Your task to perform on an android device: When is my next appointment? Image 0: 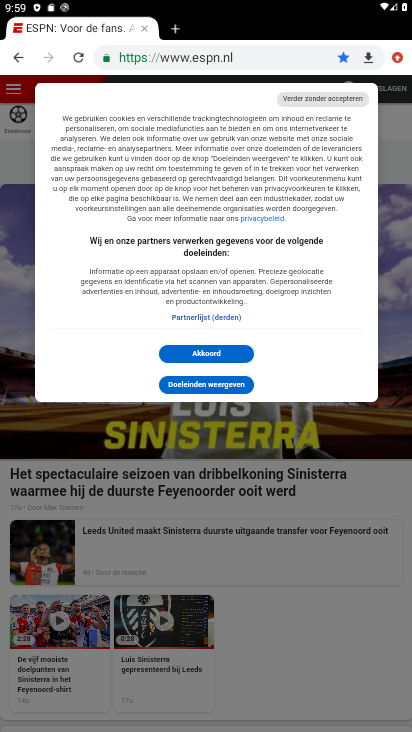
Step 0: press home button
Your task to perform on an android device: When is my next appointment? Image 1: 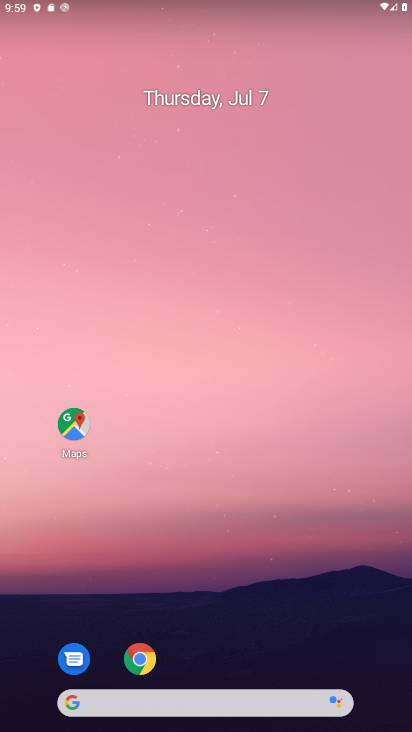
Step 1: drag from (182, 712) to (145, 141)
Your task to perform on an android device: When is my next appointment? Image 2: 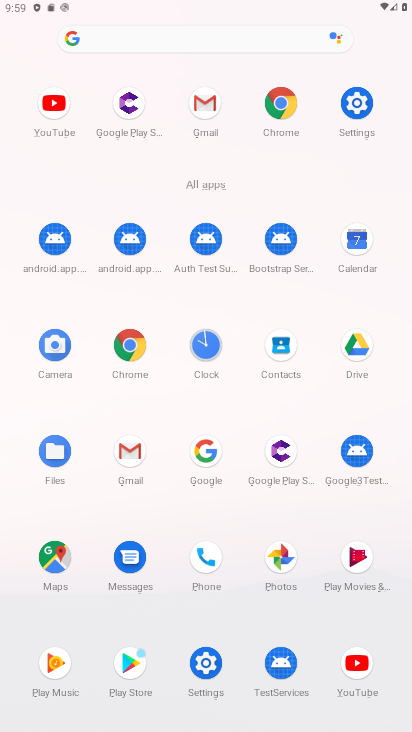
Step 2: click (362, 236)
Your task to perform on an android device: When is my next appointment? Image 3: 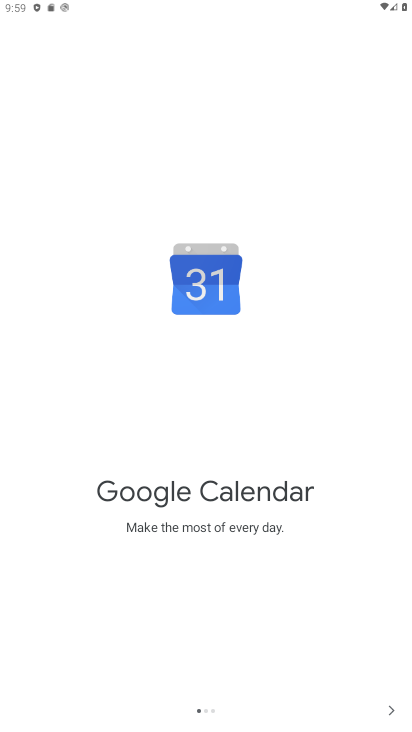
Step 3: click (392, 715)
Your task to perform on an android device: When is my next appointment? Image 4: 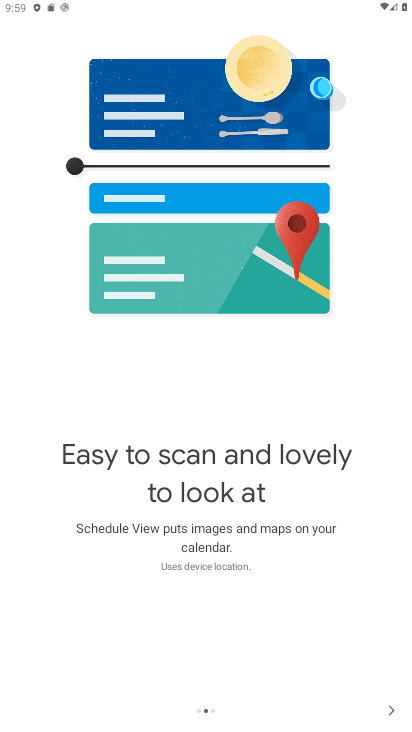
Step 4: click (392, 715)
Your task to perform on an android device: When is my next appointment? Image 5: 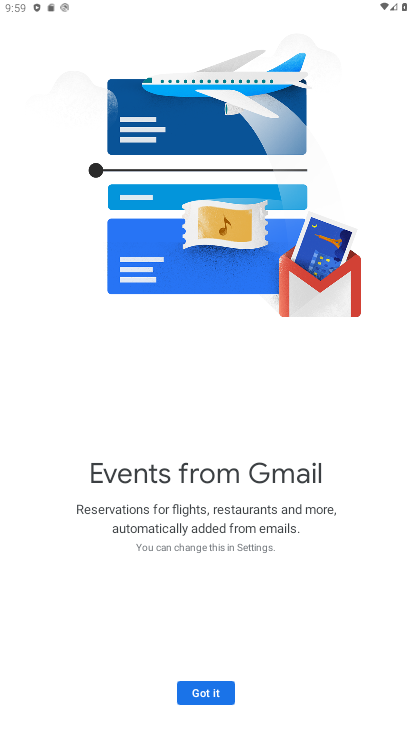
Step 5: click (211, 684)
Your task to perform on an android device: When is my next appointment? Image 6: 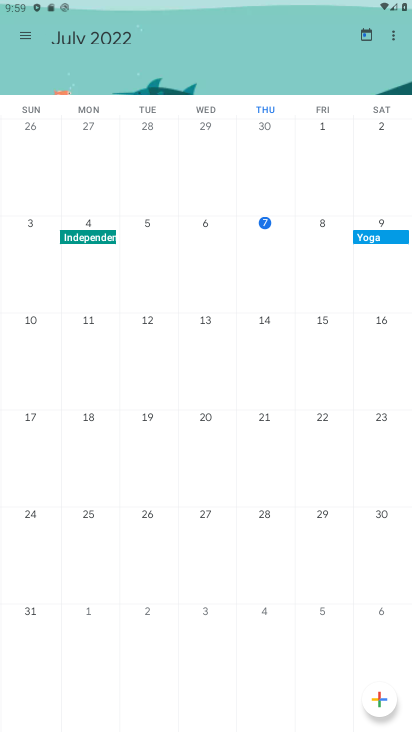
Step 6: click (32, 12)
Your task to perform on an android device: When is my next appointment? Image 7: 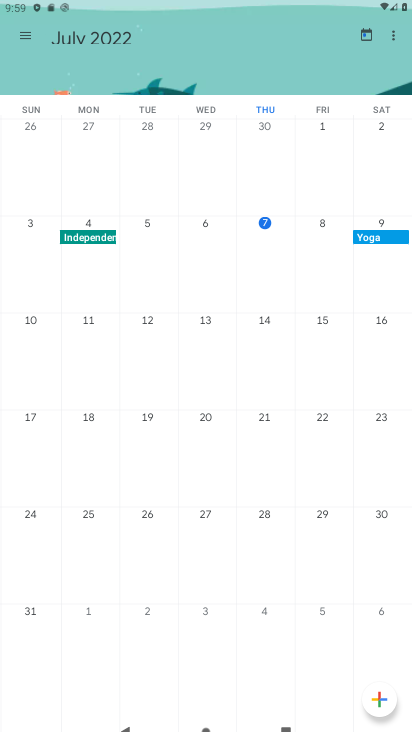
Step 7: click (32, 12)
Your task to perform on an android device: When is my next appointment? Image 8: 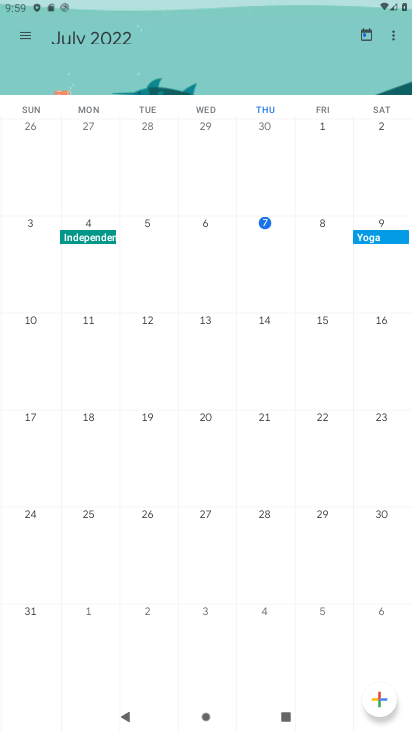
Step 8: click (30, 35)
Your task to perform on an android device: When is my next appointment? Image 9: 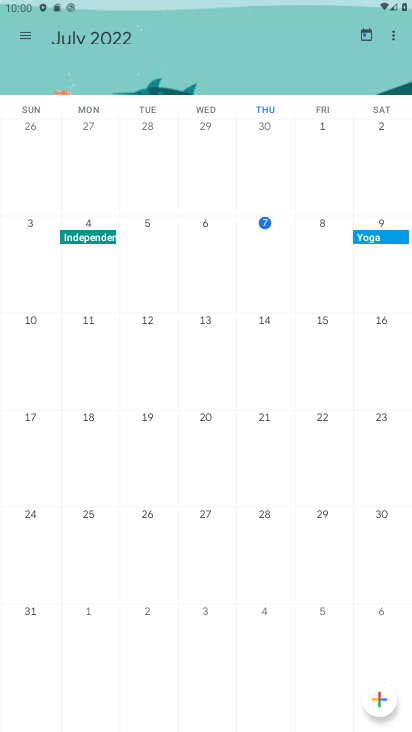
Step 9: click (30, 37)
Your task to perform on an android device: When is my next appointment? Image 10: 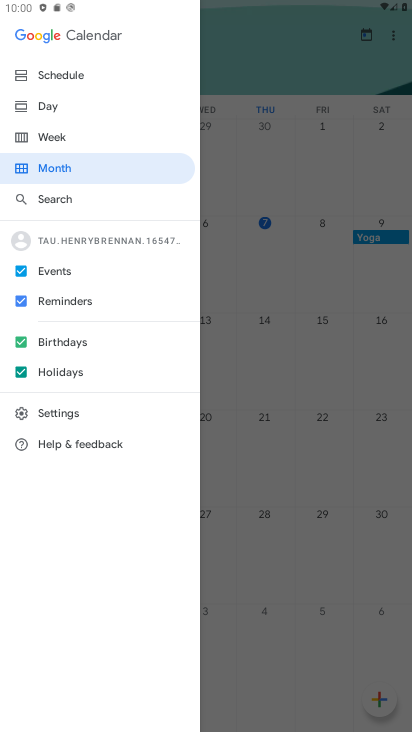
Step 10: click (61, 73)
Your task to perform on an android device: When is my next appointment? Image 11: 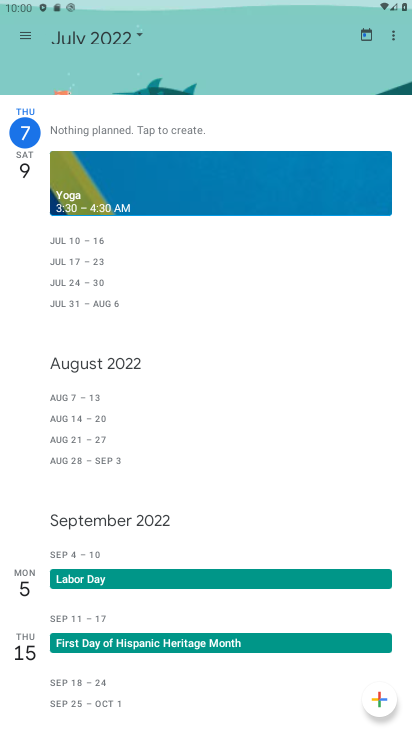
Step 11: task complete